Your task to perform on an android device: turn off location Image 0: 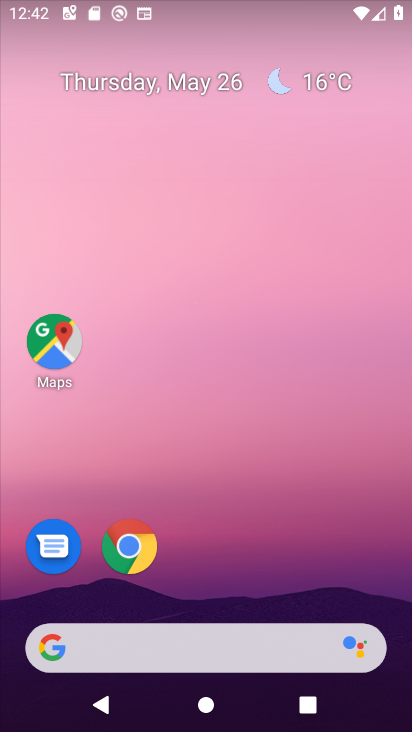
Step 0: drag from (215, 577) to (271, 245)
Your task to perform on an android device: turn off location Image 1: 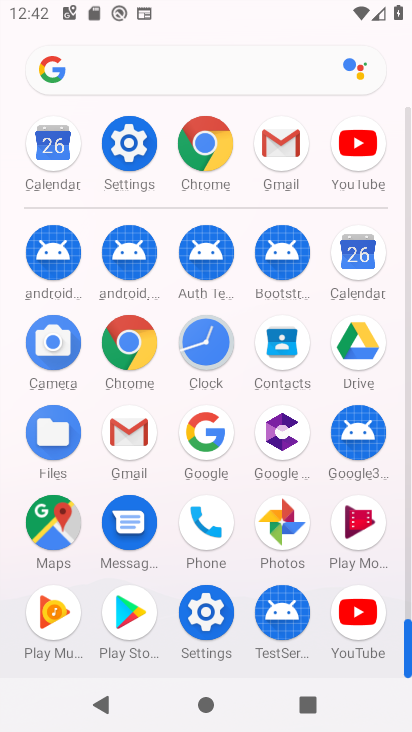
Step 1: click (216, 619)
Your task to perform on an android device: turn off location Image 2: 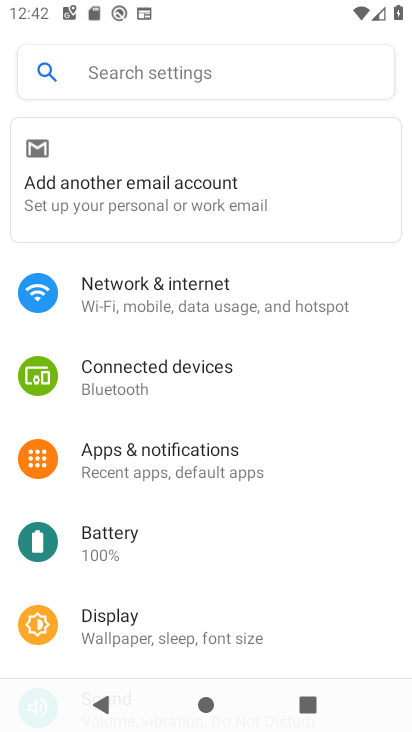
Step 2: drag from (143, 624) to (178, 237)
Your task to perform on an android device: turn off location Image 3: 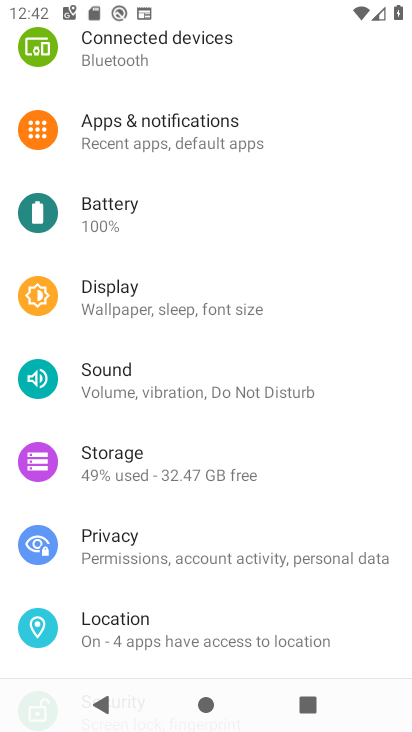
Step 3: drag from (184, 580) to (257, 310)
Your task to perform on an android device: turn off location Image 4: 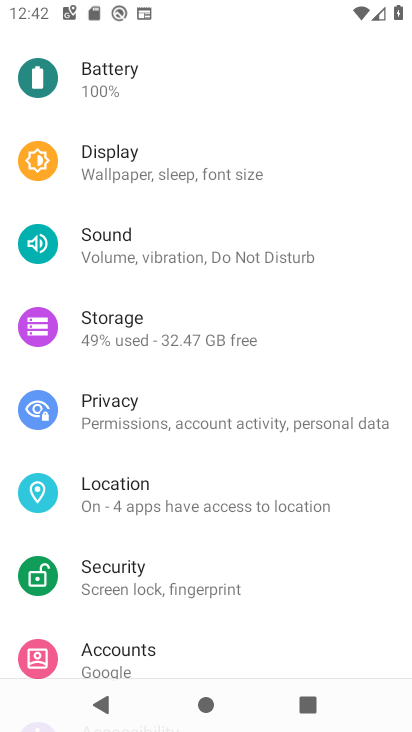
Step 4: click (205, 478)
Your task to perform on an android device: turn off location Image 5: 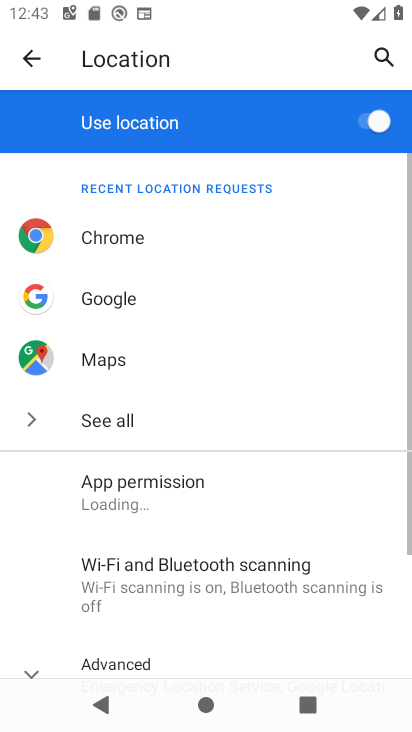
Step 5: click (361, 122)
Your task to perform on an android device: turn off location Image 6: 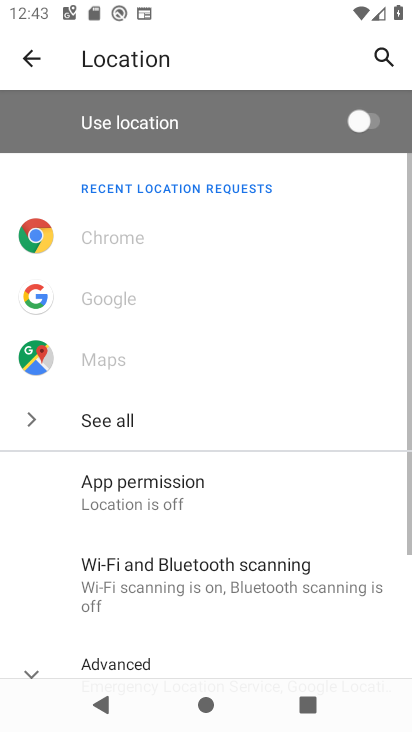
Step 6: task complete